Your task to perform on an android device: turn off smart reply in the gmail app Image 0: 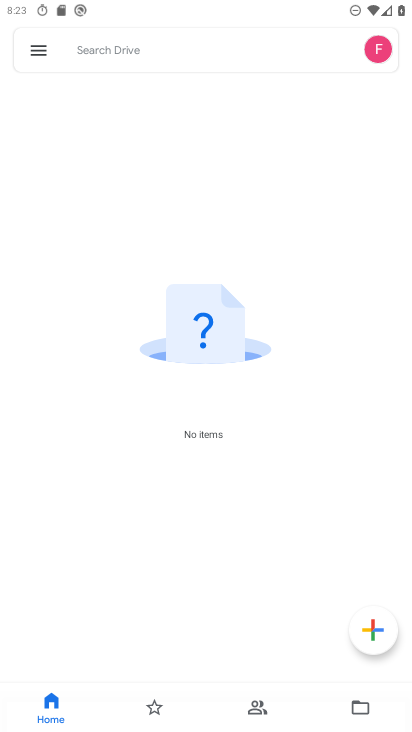
Step 0: press home button
Your task to perform on an android device: turn off smart reply in the gmail app Image 1: 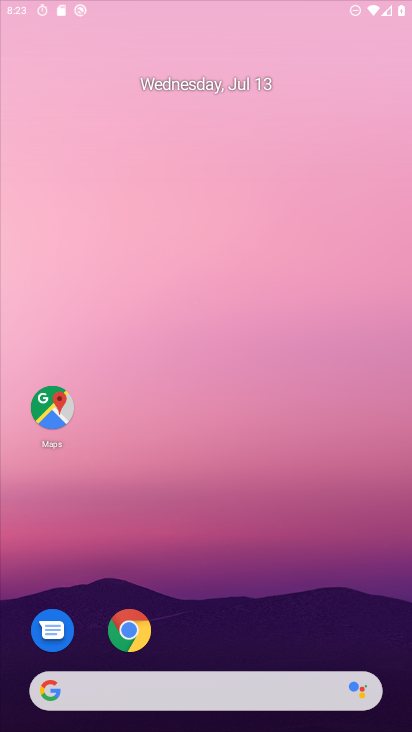
Step 1: drag from (382, 668) to (215, 28)
Your task to perform on an android device: turn off smart reply in the gmail app Image 2: 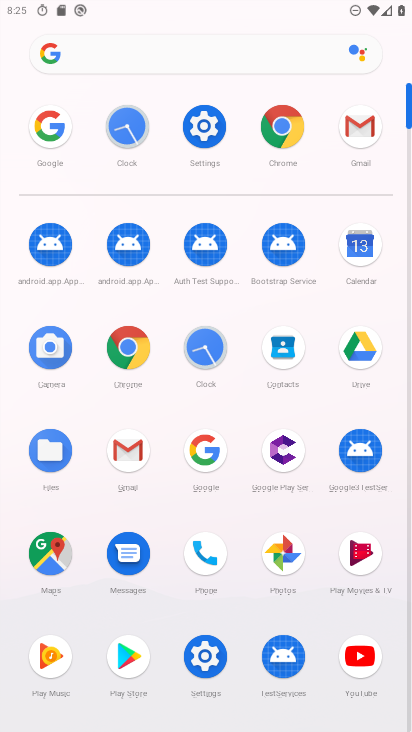
Step 2: click (122, 450)
Your task to perform on an android device: turn off smart reply in the gmail app Image 3: 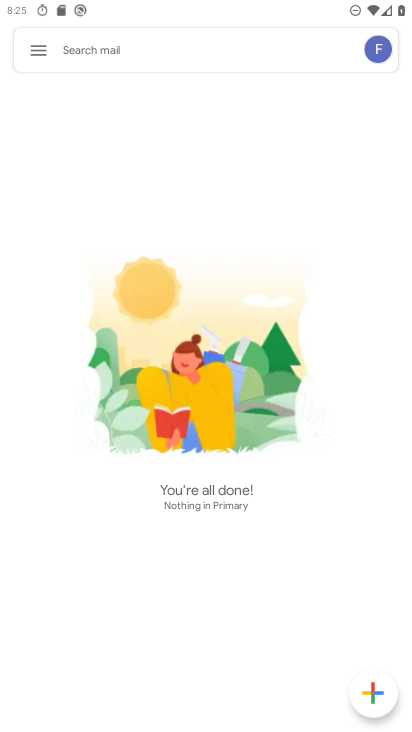
Step 3: click (28, 50)
Your task to perform on an android device: turn off smart reply in the gmail app Image 4: 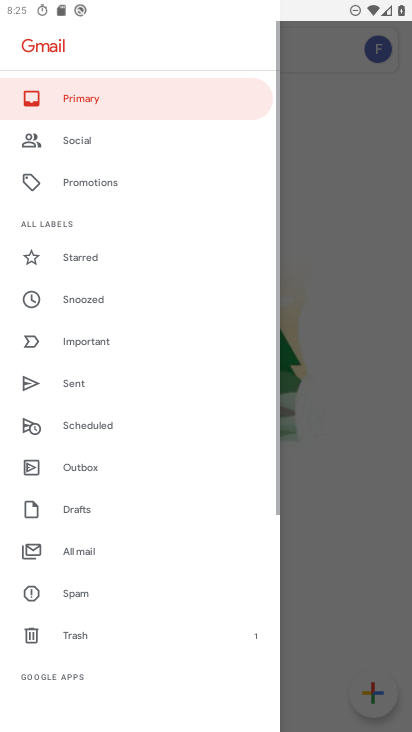
Step 4: drag from (22, 642) to (154, 98)
Your task to perform on an android device: turn off smart reply in the gmail app Image 5: 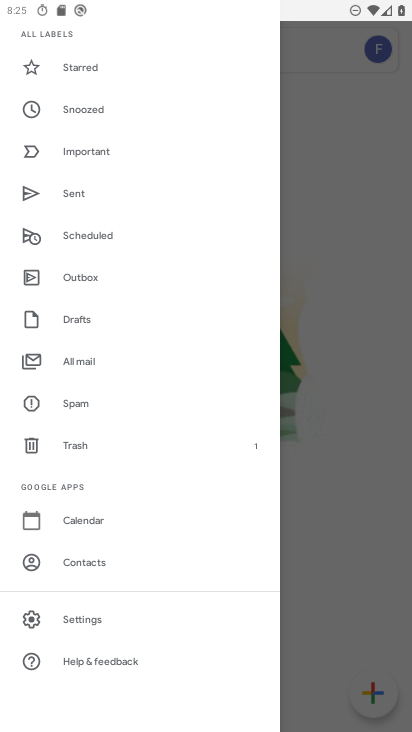
Step 5: click (107, 624)
Your task to perform on an android device: turn off smart reply in the gmail app Image 6: 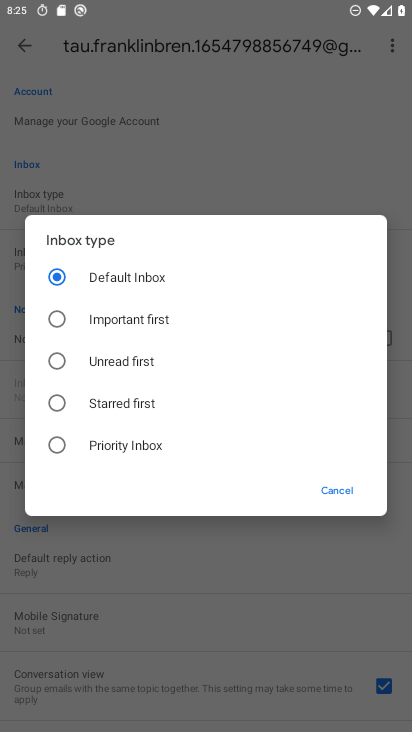
Step 6: click (352, 492)
Your task to perform on an android device: turn off smart reply in the gmail app Image 7: 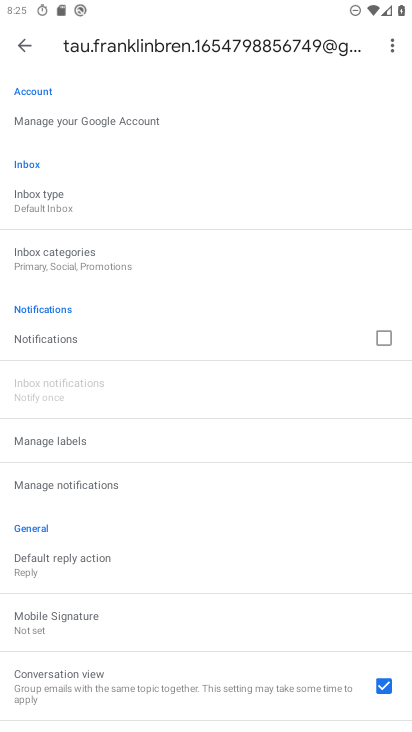
Step 7: drag from (128, 676) to (173, 65)
Your task to perform on an android device: turn off smart reply in the gmail app Image 8: 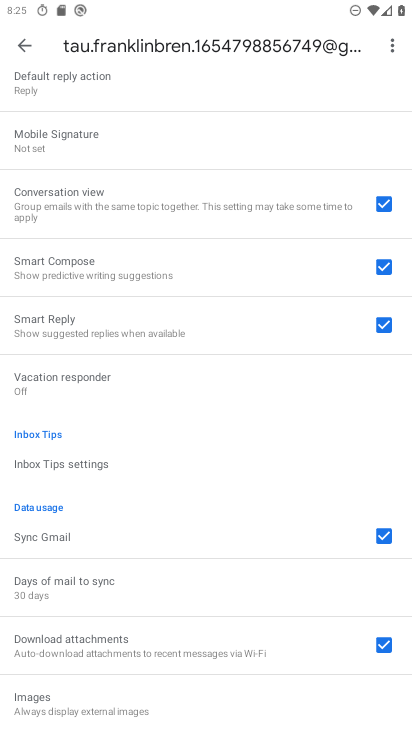
Step 8: click (212, 324)
Your task to perform on an android device: turn off smart reply in the gmail app Image 9: 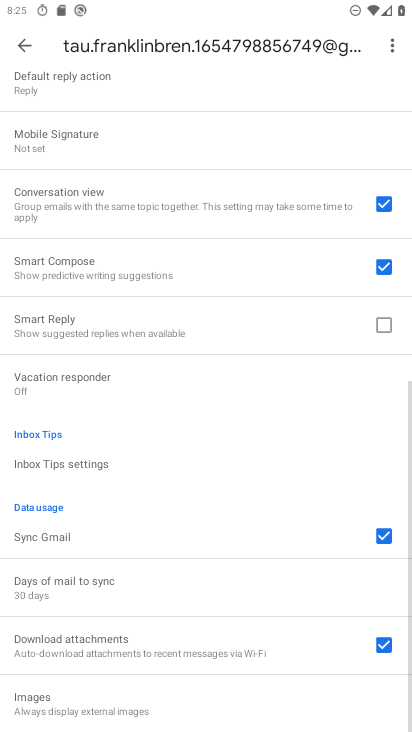
Step 9: task complete